Your task to perform on an android device: Open the calendar app, open the side menu, and click the "Day" option Image 0: 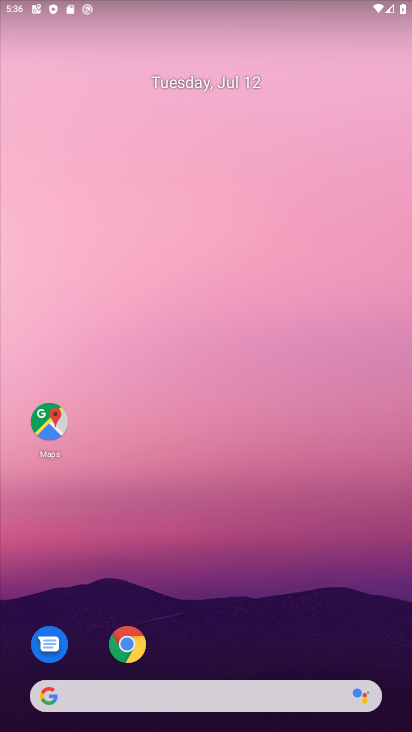
Step 0: press home button
Your task to perform on an android device: Open the calendar app, open the side menu, and click the "Day" option Image 1: 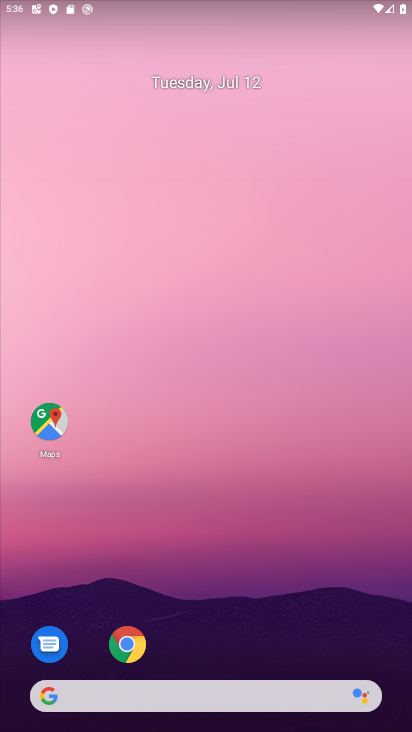
Step 1: drag from (283, 575) to (292, 447)
Your task to perform on an android device: Open the calendar app, open the side menu, and click the "Day" option Image 2: 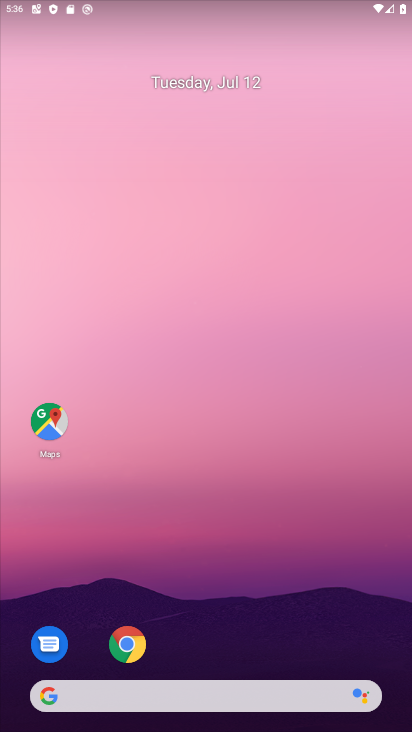
Step 2: drag from (216, 545) to (198, 67)
Your task to perform on an android device: Open the calendar app, open the side menu, and click the "Day" option Image 3: 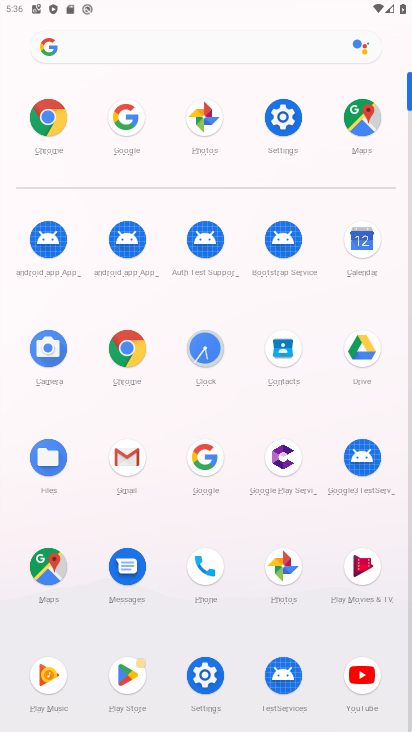
Step 3: click (360, 241)
Your task to perform on an android device: Open the calendar app, open the side menu, and click the "Day" option Image 4: 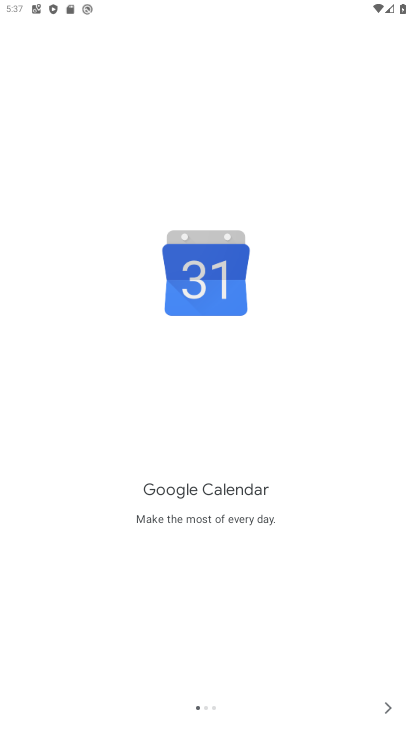
Step 4: click (392, 703)
Your task to perform on an android device: Open the calendar app, open the side menu, and click the "Day" option Image 5: 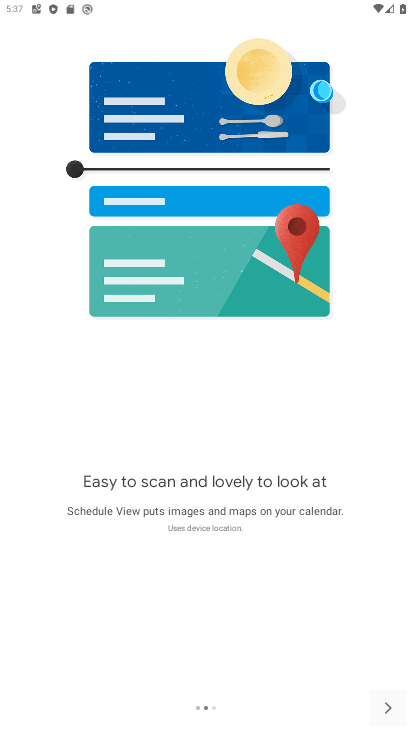
Step 5: click (392, 703)
Your task to perform on an android device: Open the calendar app, open the side menu, and click the "Day" option Image 6: 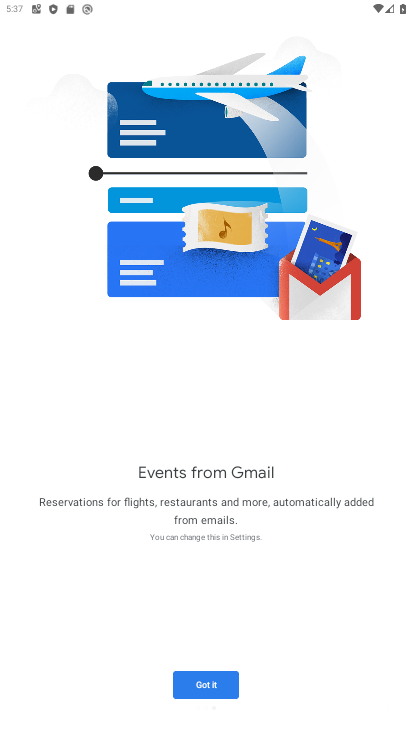
Step 6: click (392, 703)
Your task to perform on an android device: Open the calendar app, open the side menu, and click the "Day" option Image 7: 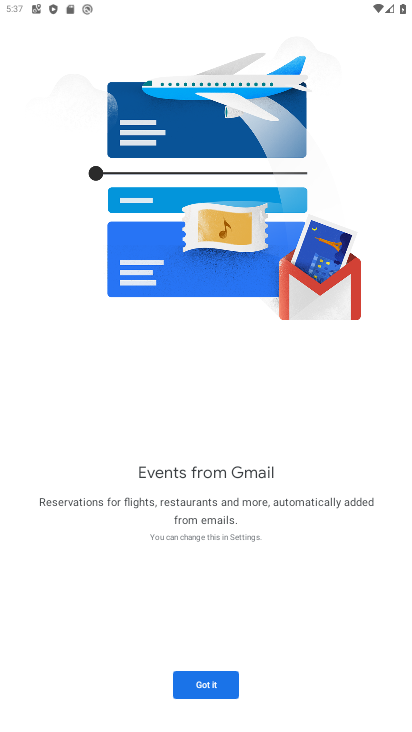
Step 7: click (224, 689)
Your task to perform on an android device: Open the calendar app, open the side menu, and click the "Day" option Image 8: 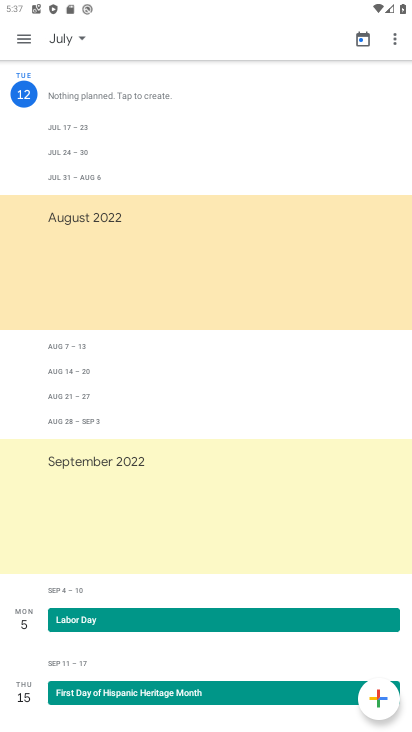
Step 8: click (23, 37)
Your task to perform on an android device: Open the calendar app, open the side menu, and click the "Day" option Image 9: 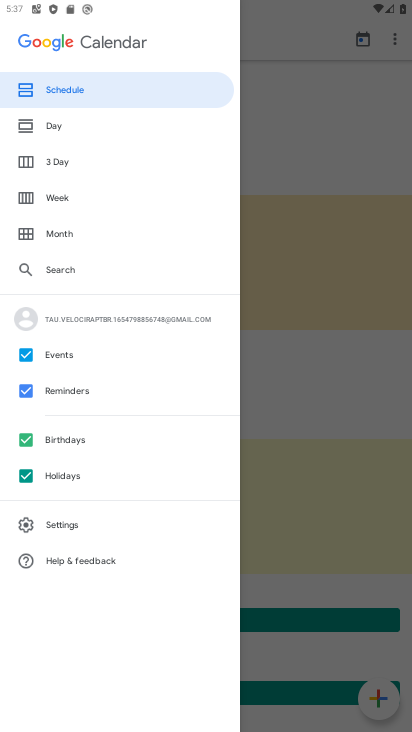
Step 9: click (51, 136)
Your task to perform on an android device: Open the calendar app, open the side menu, and click the "Day" option Image 10: 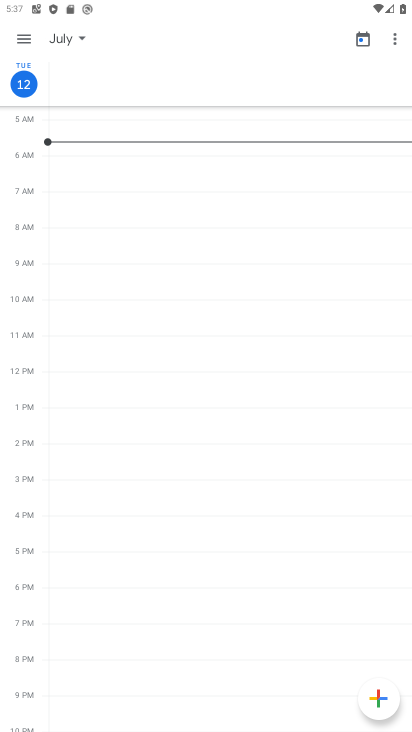
Step 10: task complete